Your task to perform on an android device: clear all cookies in the chrome app Image 0: 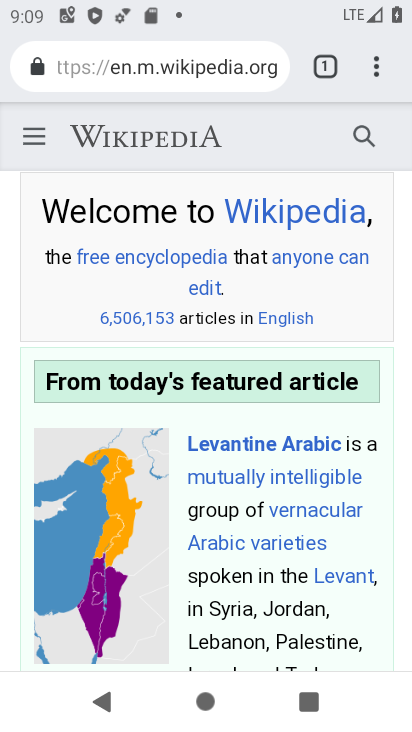
Step 0: click (376, 69)
Your task to perform on an android device: clear all cookies in the chrome app Image 1: 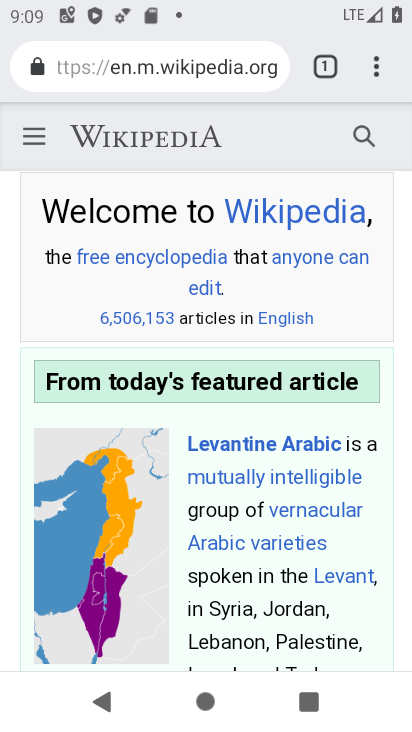
Step 1: click (376, 72)
Your task to perform on an android device: clear all cookies in the chrome app Image 2: 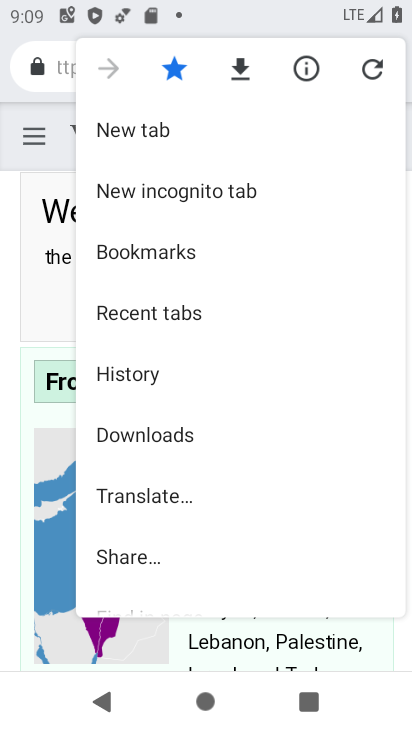
Step 2: drag from (283, 376) to (286, 67)
Your task to perform on an android device: clear all cookies in the chrome app Image 3: 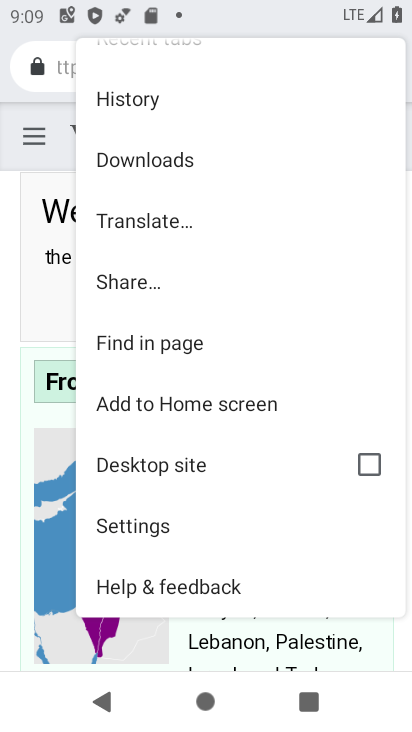
Step 3: click (177, 510)
Your task to perform on an android device: clear all cookies in the chrome app Image 4: 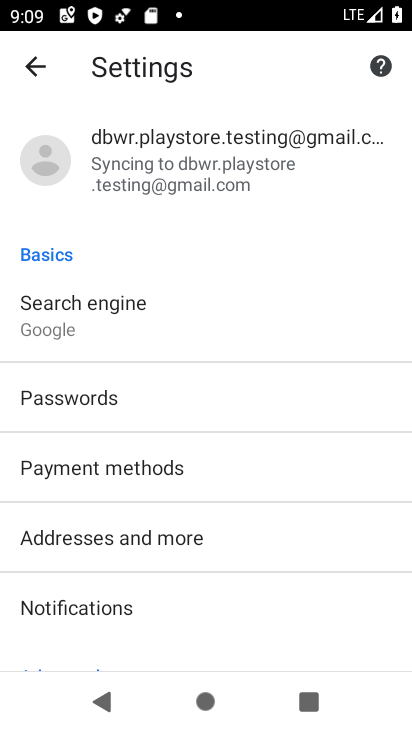
Step 4: drag from (232, 599) to (266, 209)
Your task to perform on an android device: clear all cookies in the chrome app Image 5: 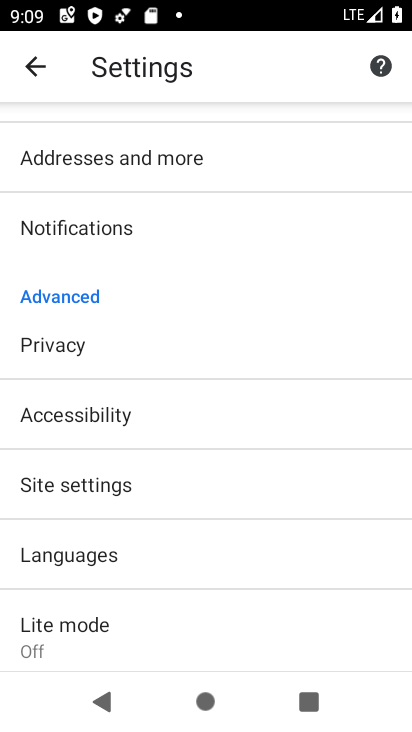
Step 5: drag from (270, 252) to (272, 643)
Your task to perform on an android device: clear all cookies in the chrome app Image 6: 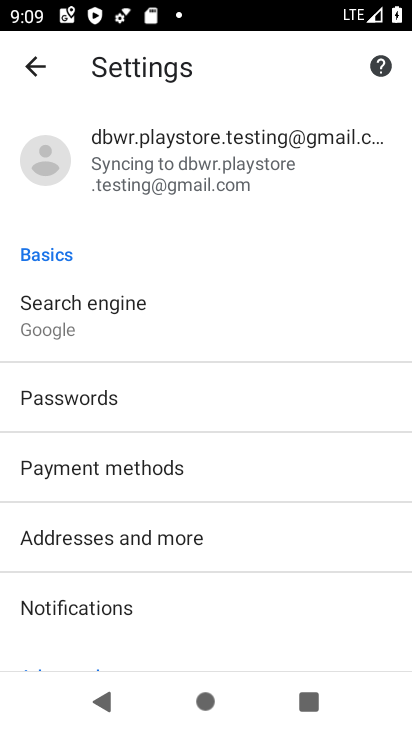
Step 6: drag from (302, 523) to (313, 343)
Your task to perform on an android device: clear all cookies in the chrome app Image 7: 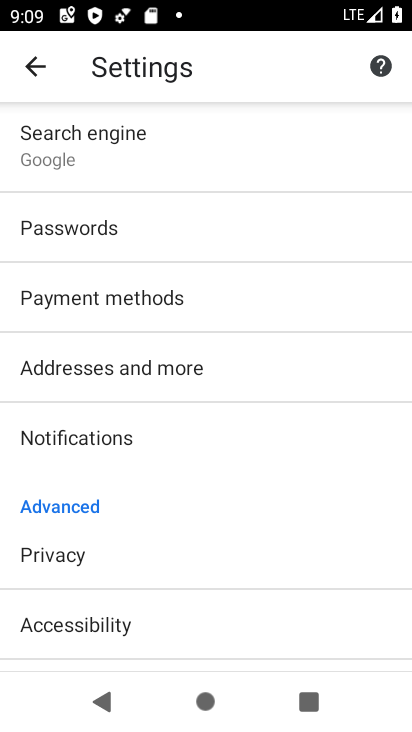
Step 7: click (167, 555)
Your task to perform on an android device: clear all cookies in the chrome app Image 8: 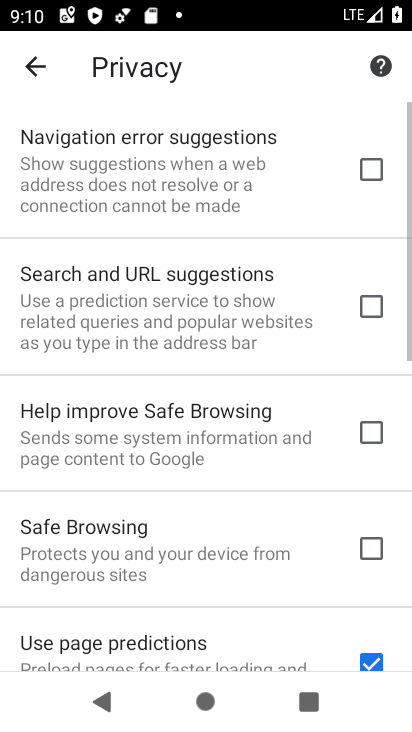
Step 8: drag from (210, 575) to (259, 37)
Your task to perform on an android device: clear all cookies in the chrome app Image 9: 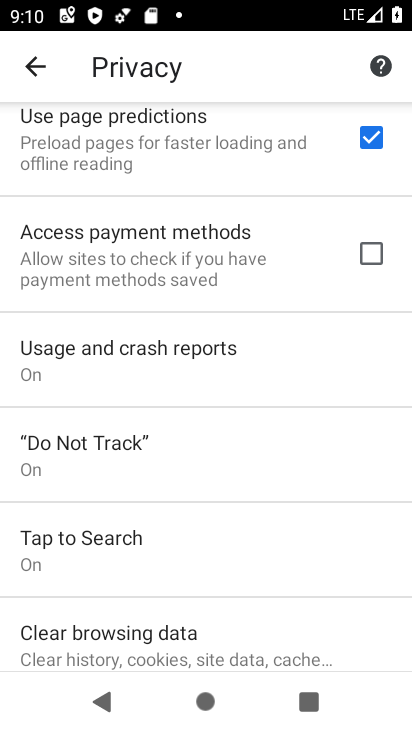
Step 9: drag from (211, 496) to (225, 387)
Your task to perform on an android device: clear all cookies in the chrome app Image 10: 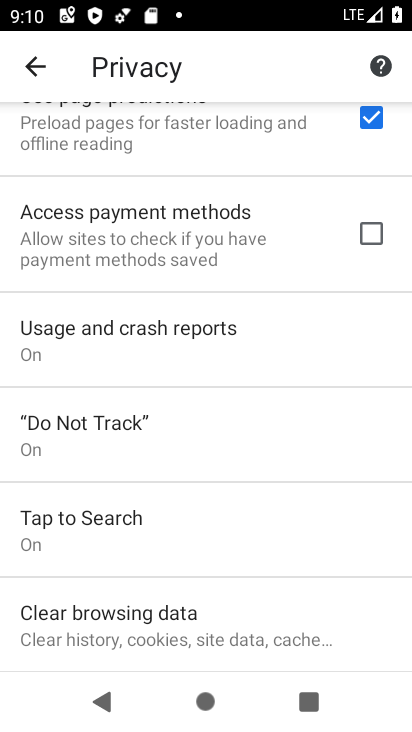
Step 10: click (194, 640)
Your task to perform on an android device: clear all cookies in the chrome app Image 11: 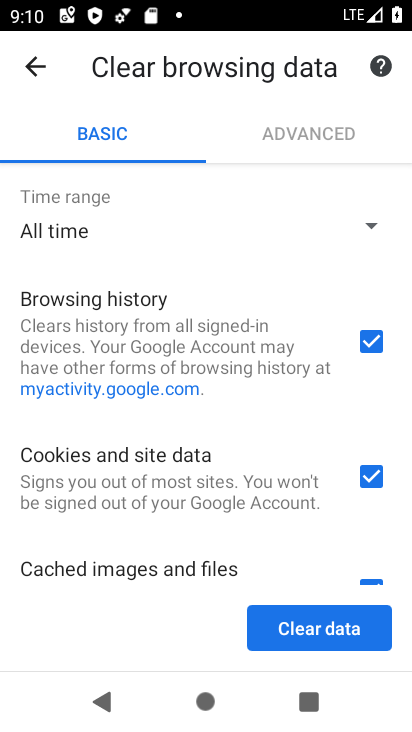
Step 11: click (374, 342)
Your task to perform on an android device: clear all cookies in the chrome app Image 12: 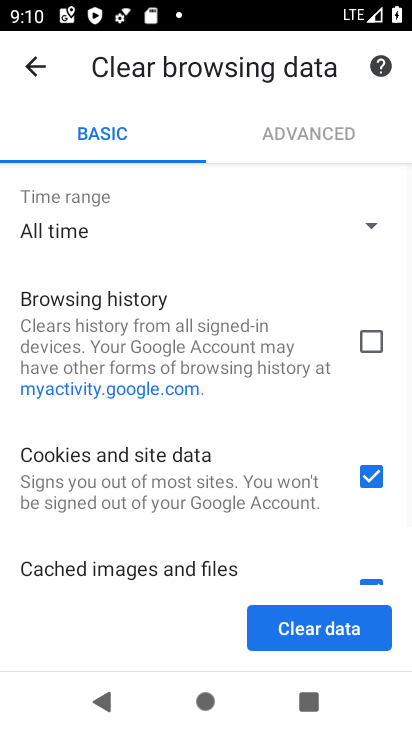
Step 12: drag from (322, 529) to (305, 399)
Your task to perform on an android device: clear all cookies in the chrome app Image 13: 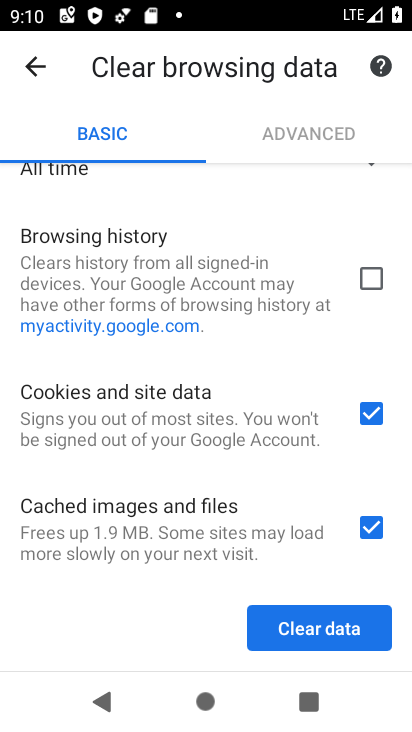
Step 13: click (365, 521)
Your task to perform on an android device: clear all cookies in the chrome app Image 14: 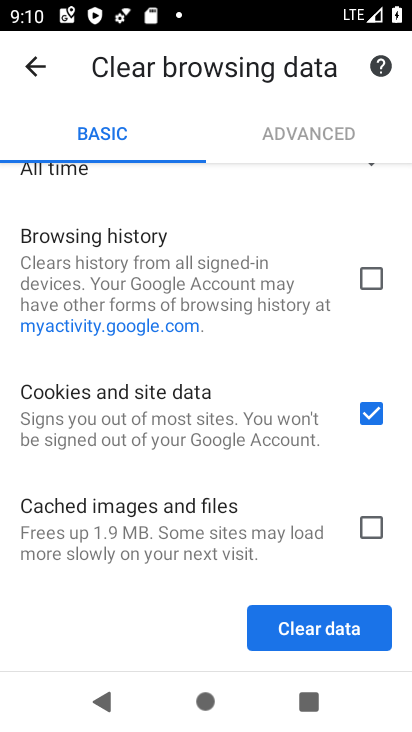
Step 14: click (365, 628)
Your task to perform on an android device: clear all cookies in the chrome app Image 15: 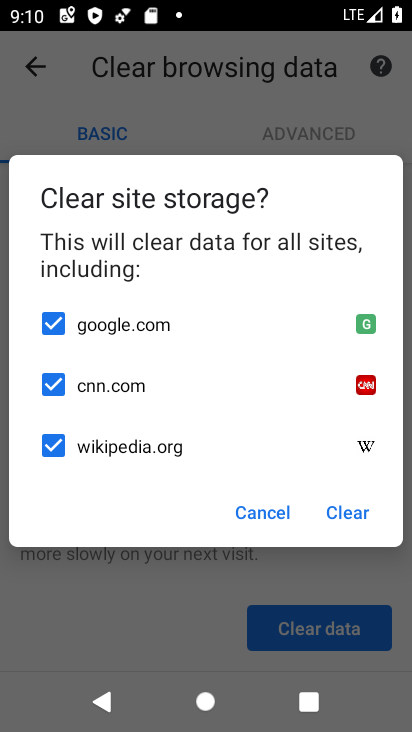
Step 15: click (351, 506)
Your task to perform on an android device: clear all cookies in the chrome app Image 16: 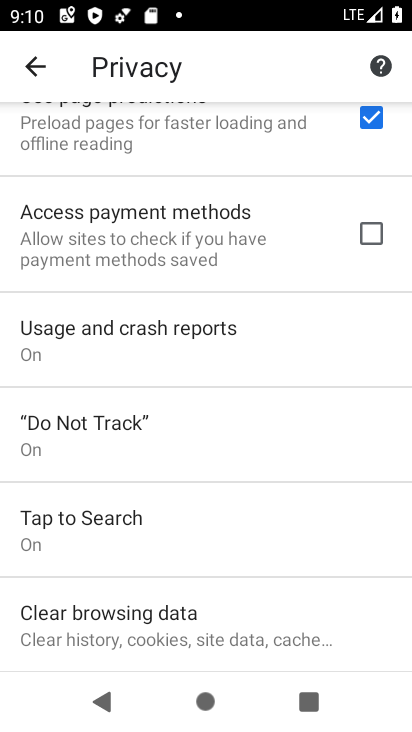
Step 16: task complete